Your task to perform on an android device: turn on priority inbox in the gmail app Image 0: 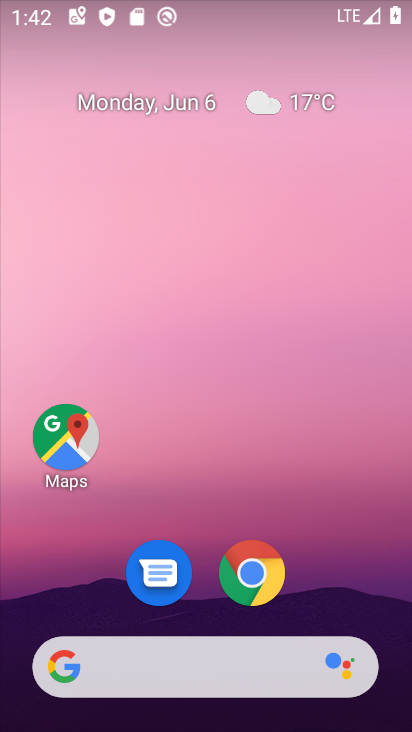
Step 0: drag from (370, 566) to (374, 242)
Your task to perform on an android device: turn on priority inbox in the gmail app Image 1: 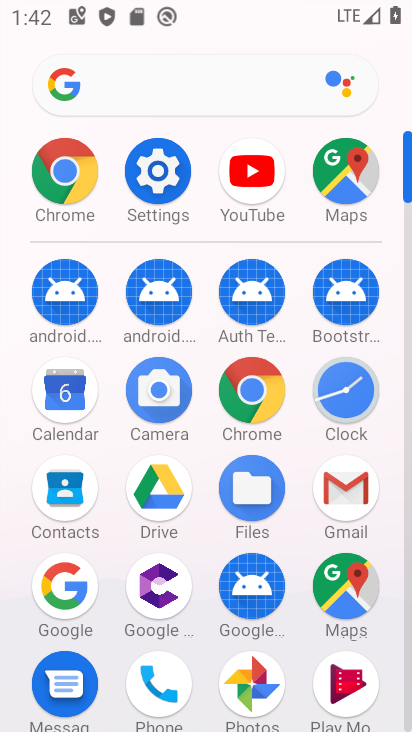
Step 1: click (353, 487)
Your task to perform on an android device: turn on priority inbox in the gmail app Image 2: 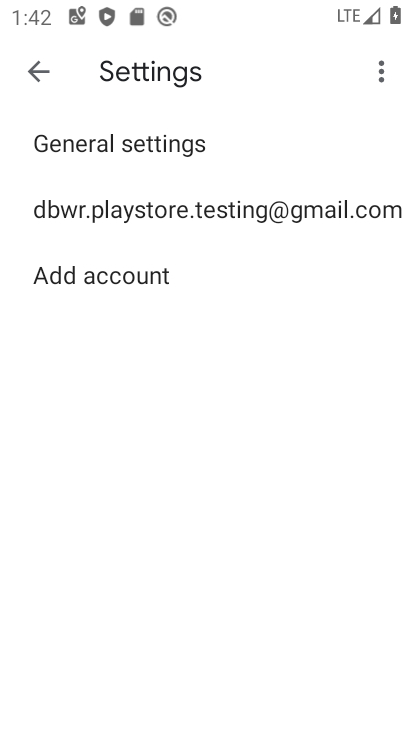
Step 2: press back button
Your task to perform on an android device: turn on priority inbox in the gmail app Image 3: 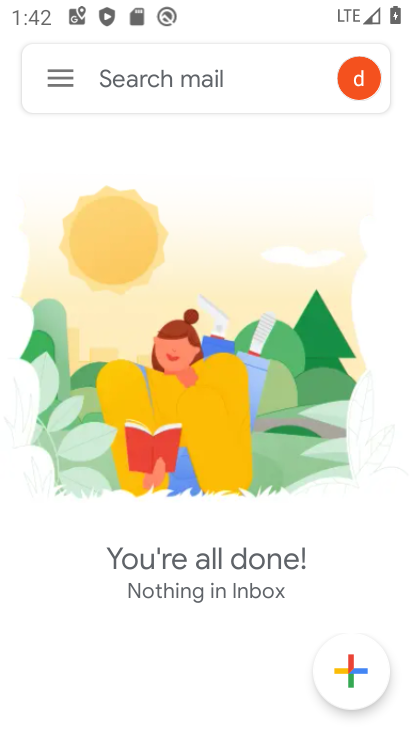
Step 3: click (62, 81)
Your task to perform on an android device: turn on priority inbox in the gmail app Image 4: 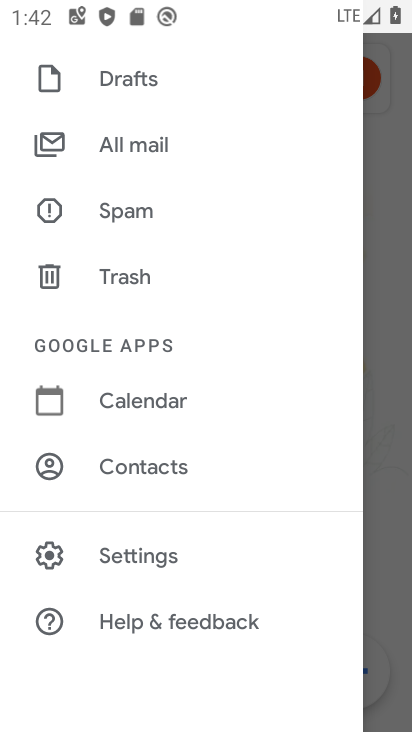
Step 4: drag from (285, 421) to (287, 244)
Your task to perform on an android device: turn on priority inbox in the gmail app Image 5: 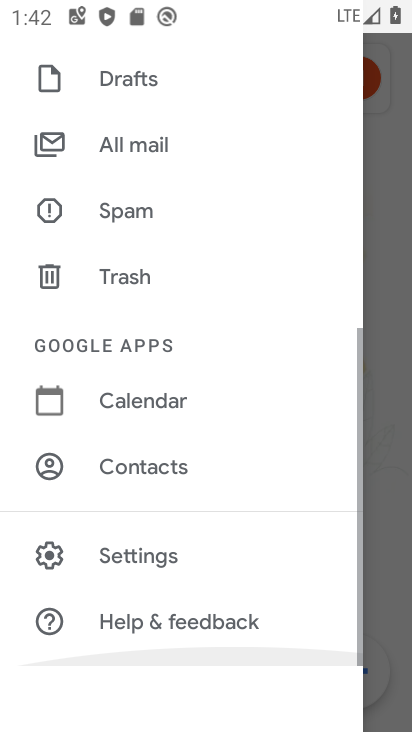
Step 5: drag from (288, 152) to (293, 322)
Your task to perform on an android device: turn on priority inbox in the gmail app Image 6: 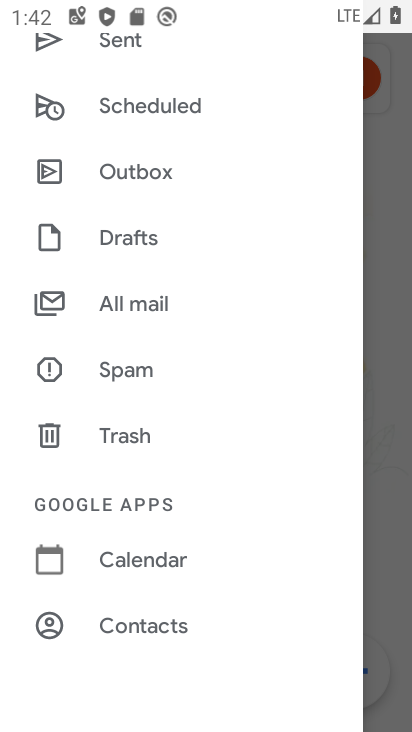
Step 6: drag from (278, 147) to (281, 293)
Your task to perform on an android device: turn on priority inbox in the gmail app Image 7: 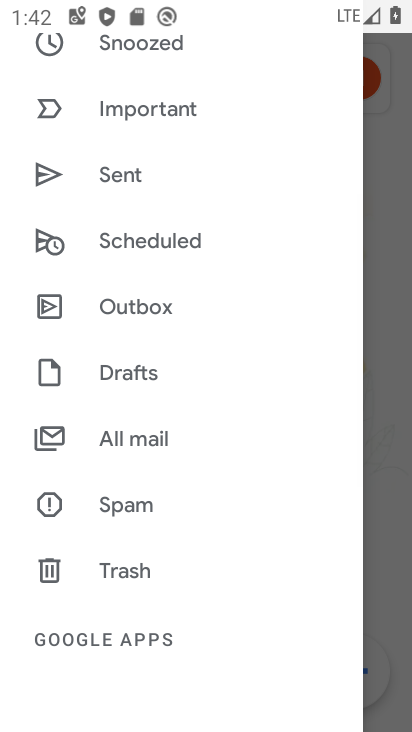
Step 7: drag from (278, 116) to (290, 302)
Your task to perform on an android device: turn on priority inbox in the gmail app Image 8: 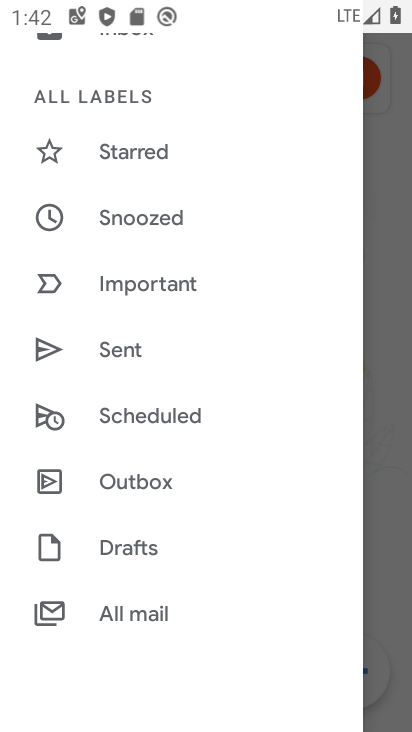
Step 8: drag from (279, 136) to (283, 363)
Your task to perform on an android device: turn on priority inbox in the gmail app Image 9: 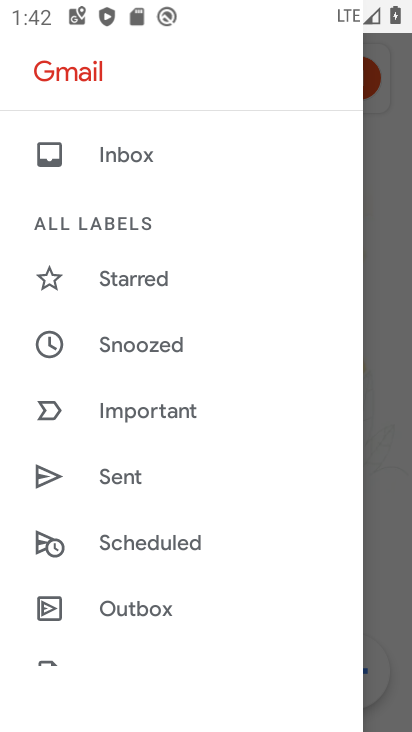
Step 9: drag from (275, 428) to (279, 336)
Your task to perform on an android device: turn on priority inbox in the gmail app Image 10: 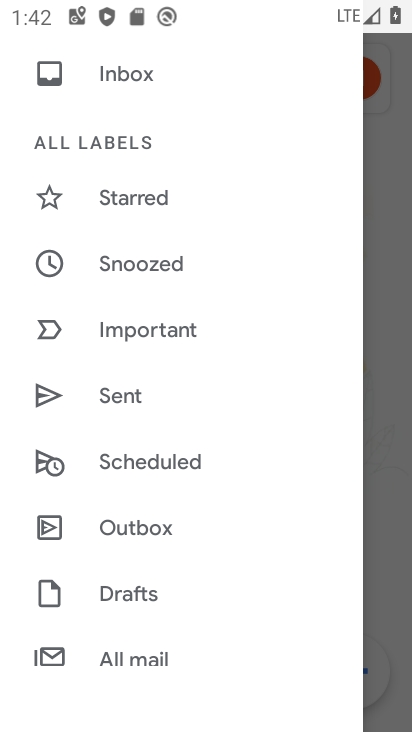
Step 10: drag from (292, 431) to (284, 329)
Your task to perform on an android device: turn on priority inbox in the gmail app Image 11: 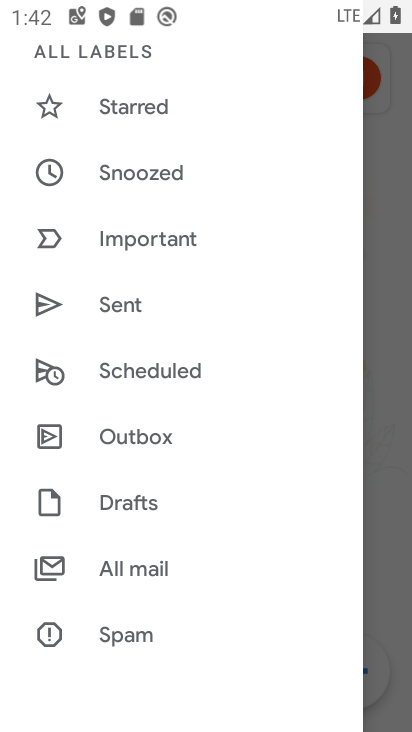
Step 11: drag from (282, 451) to (289, 363)
Your task to perform on an android device: turn on priority inbox in the gmail app Image 12: 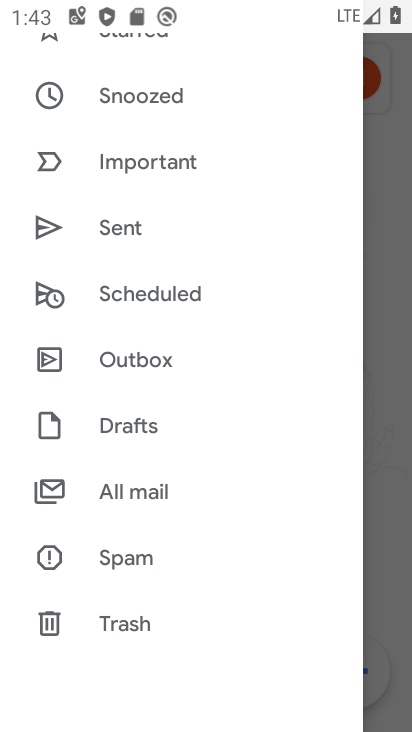
Step 12: drag from (265, 478) to (270, 376)
Your task to perform on an android device: turn on priority inbox in the gmail app Image 13: 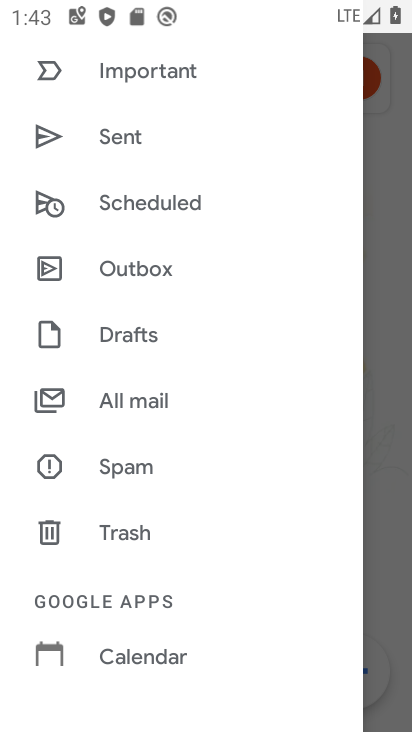
Step 13: drag from (251, 507) to (256, 325)
Your task to perform on an android device: turn on priority inbox in the gmail app Image 14: 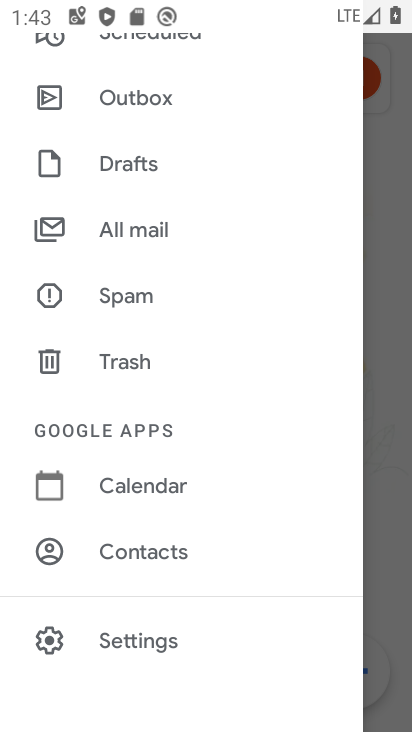
Step 14: drag from (253, 538) to (253, 406)
Your task to perform on an android device: turn on priority inbox in the gmail app Image 15: 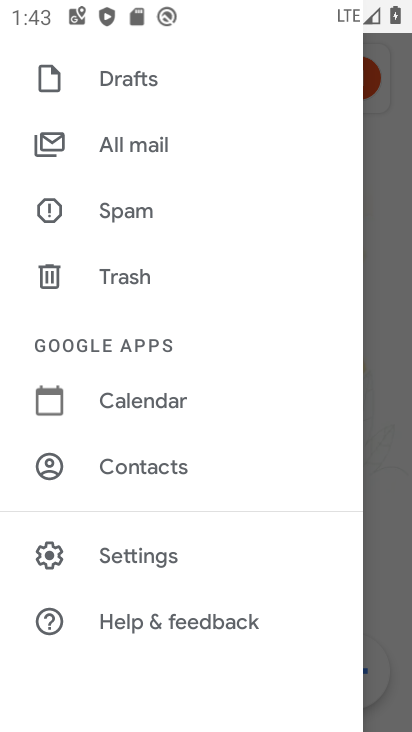
Step 15: click (187, 550)
Your task to perform on an android device: turn on priority inbox in the gmail app Image 16: 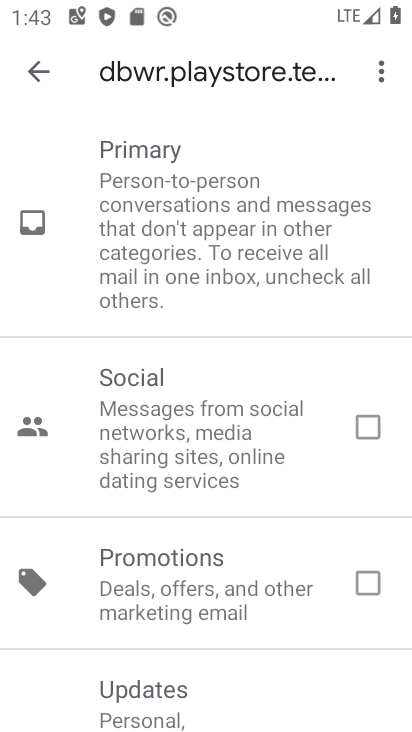
Step 16: click (33, 82)
Your task to perform on an android device: turn on priority inbox in the gmail app Image 17: 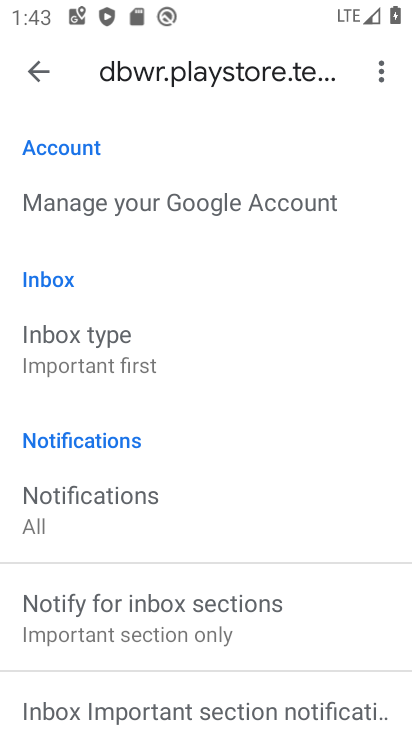
Step 17: drag from (300, 436) to (300, 305)
Your task to perform on an android device: turn on priority inbox in the gmail app Image 18: 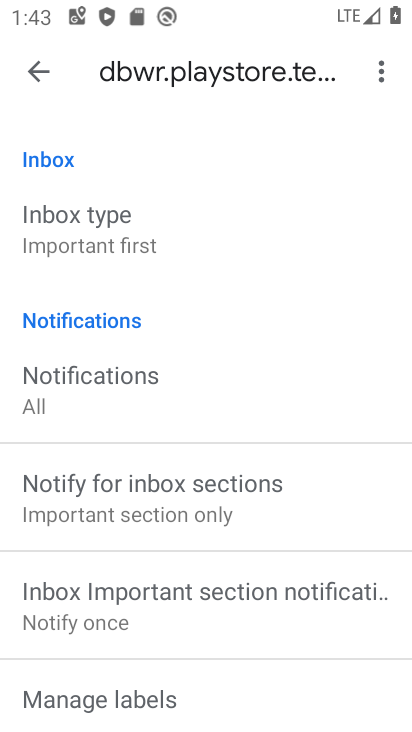
Step 18: click (122, 229)
Your task to perform on an android device: turn on priority inbox in the gmail app Image 19: 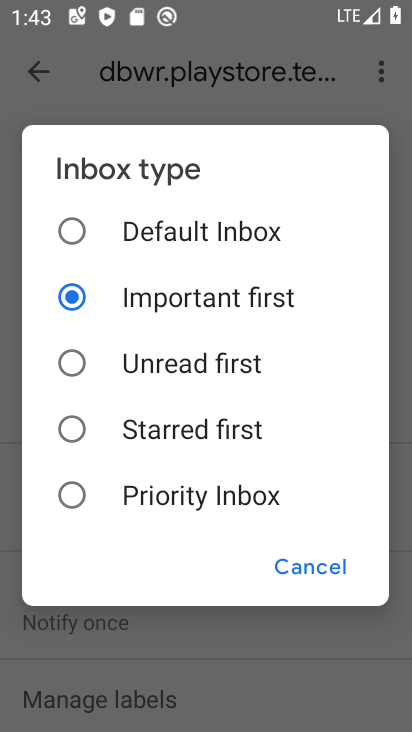
Step 19: click (145, 494)
Your task to perform on an android device: turn on priority inbox in the gmail app Image 20: 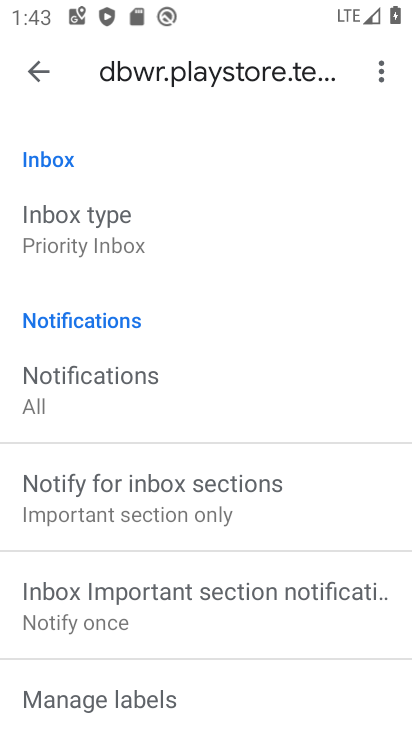
Step 20: task complete